Your task to perform on an android device: turn on data saver in the chrome app Image 0: 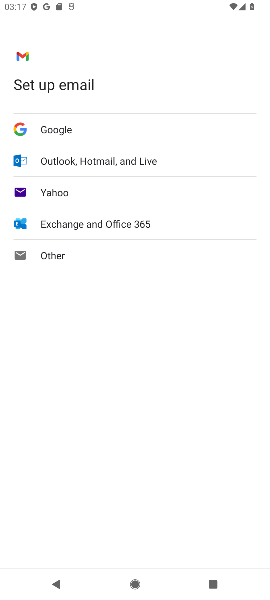
Step 0: press home button
Your task to perform on an android device: turn on data saver in the chrome app Image 1: 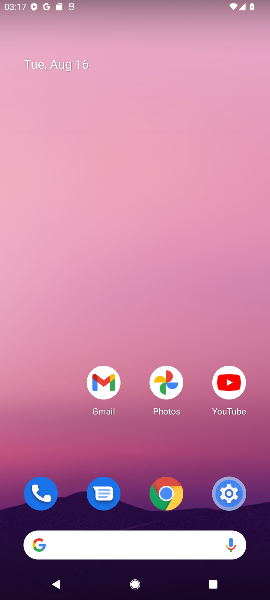
Step 1: drag from (58, 452) to (81, 76)
Your task to perform on an android device: turn on data saver in the chrome app Image 2: 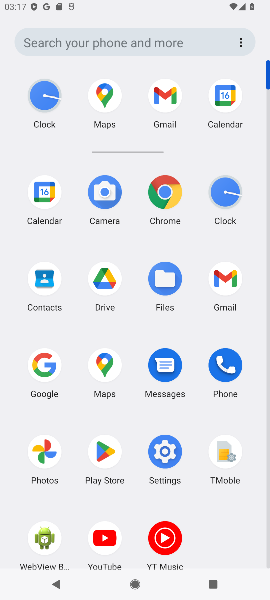
Step 2: click (169, 187)
Your task to perform on an android device: turn on data saver in the chrome app Image 3: 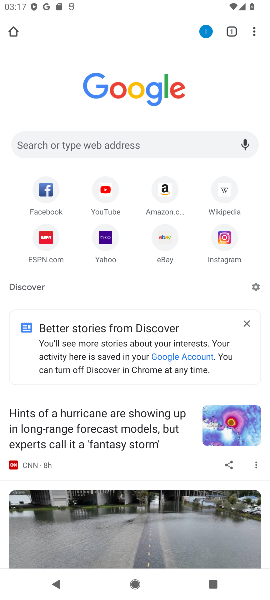
Step 3: click (254, 30)
Your task to perform on an android device: turn on data saver in the chrome app Image 4: 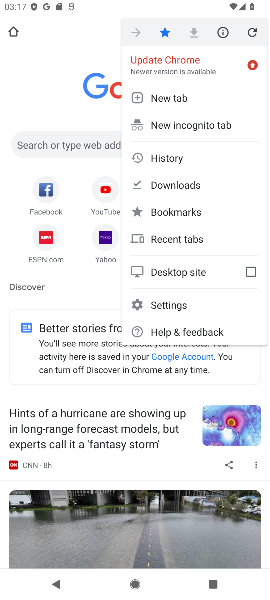
Step 4: click (178, 307)
Your task to perform on an android device: turn on data saver in the chrome app Image 5: 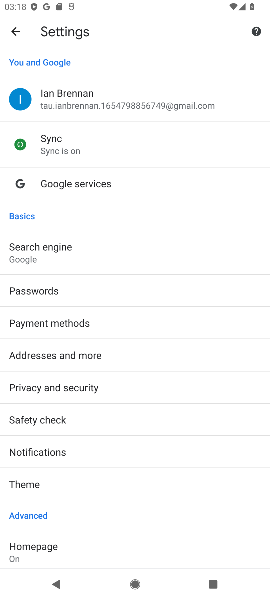
Step 5: drag from (181, 458) to (187, 355)
Your task to perform on an android device: turn on data saver in the chrome app Image 6: 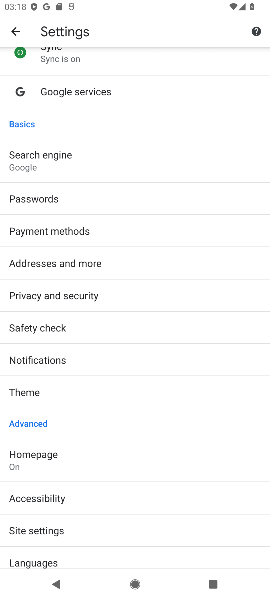
Step 6: drag from (151, 478) to (176, 362)
Your task to perform on an android device: turn on data saver in the chrome app Image 7: 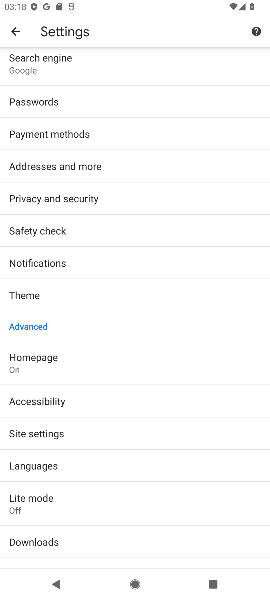
Step 7: drag from (161, 496) to (163, 380)
Your task to perform on an android device: turn on data saver in the chrome app Image 8: 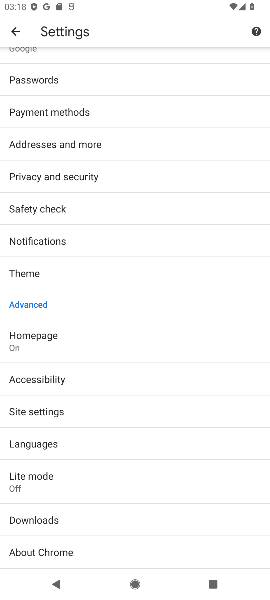
Step 8: click (142, 480)
Your task to perform on an android device: turn on data saver in the chrome app Image 9: 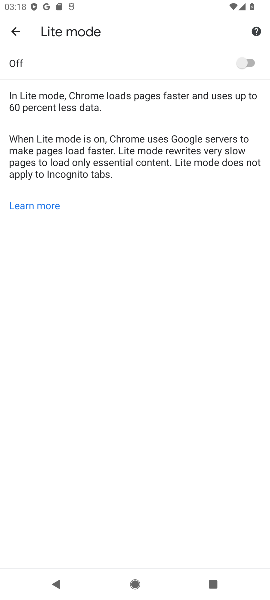
Step 9: click (239, 63)
Your task to perform on an android device: turn on data saver in the chrome app Image 10: 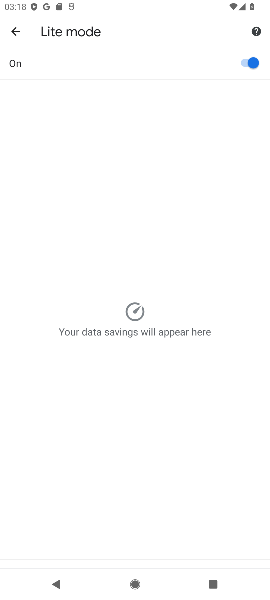
Step 10: task complete